Your task to perform on an android device: turn off data saver in the chrome app Image 0: 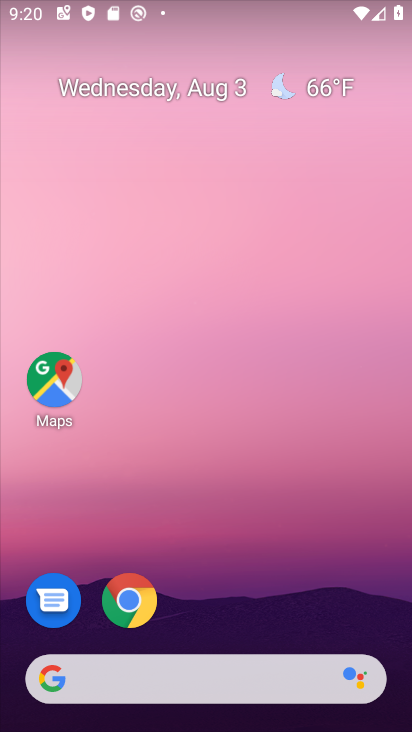
Step 0: click (137, 605)
Your task to perform on an android device: turn off data saver in the chrome app Image 1: 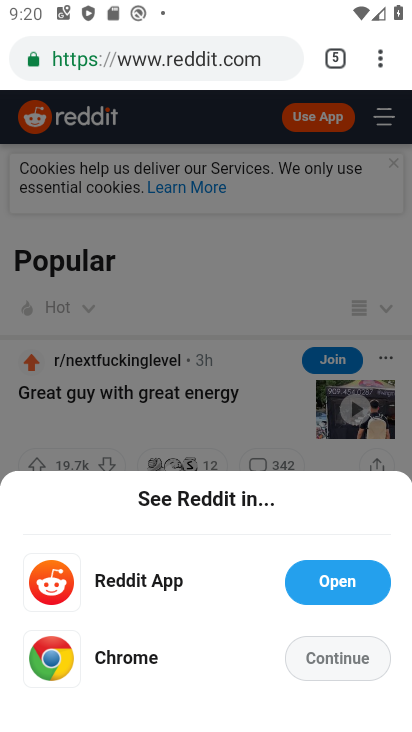
Step 1: click (382, 57)
Your task to perform on an android device: turn off data saver in the chrome app Image 2: 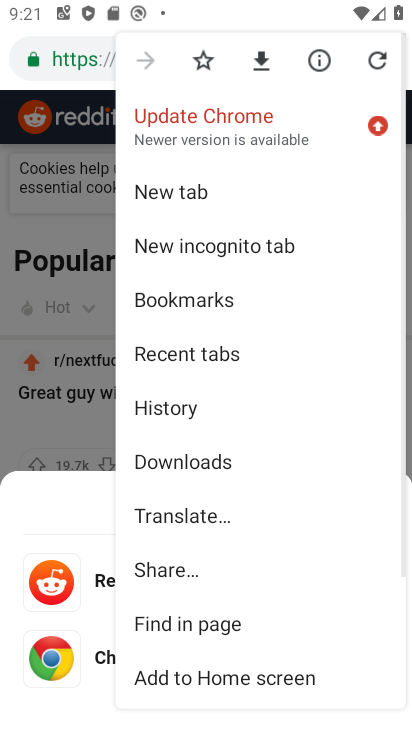
Step 2: drag from (188, 629) to (206, 357)
Your task to perform on an android device: turn off data saver in the chrome app Image 3: 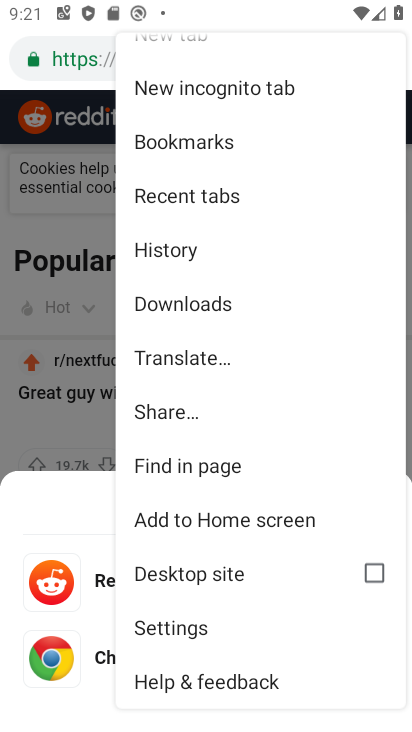
Step 3: click (177, 636)
Your task to perform on an android device: turn off data saver in the chrome app Image 4: 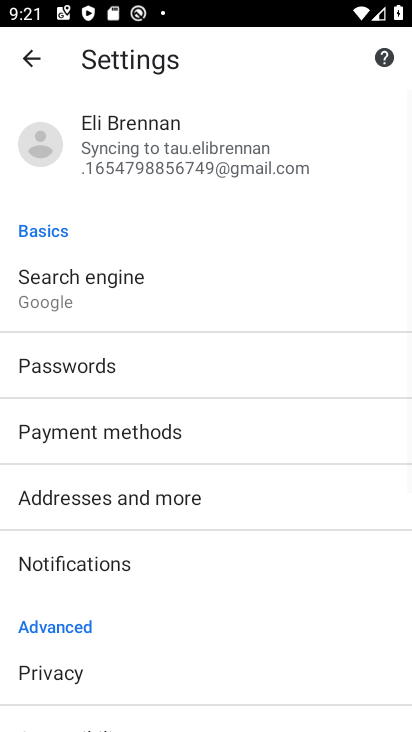
Step 4: drag from (150, 580) to (184, 233)
Your task to perform on an android device: turn off data saver in the chrome app Image 5: 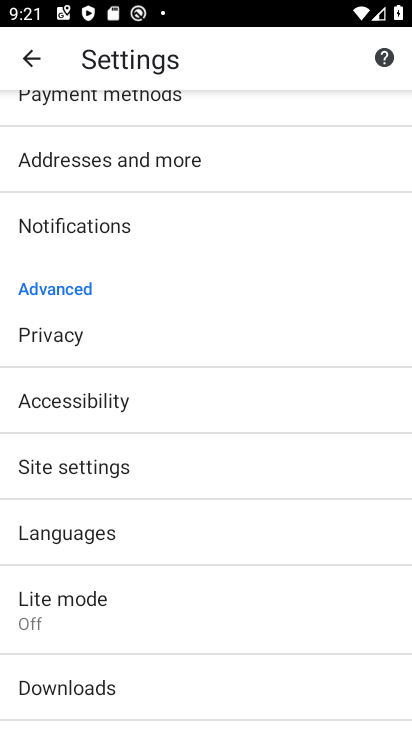
Step 5: click (80, 615)
Your task to perform on an android device: turn off data saver in the chrome app Image 6: 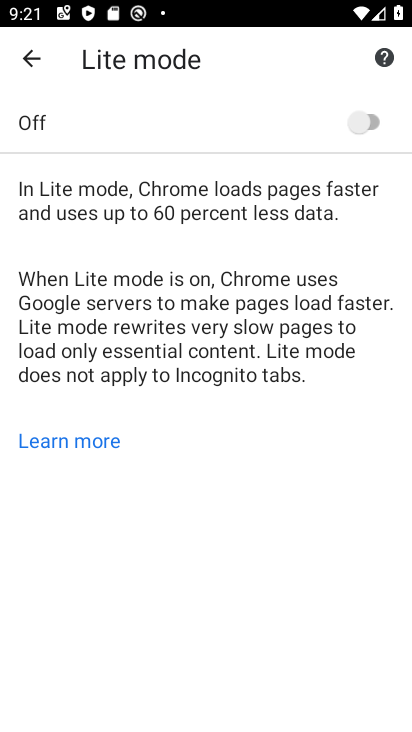
Step 6: task complete